Your task to perform on an android device: visit the assistant section in the google photos Image 0: 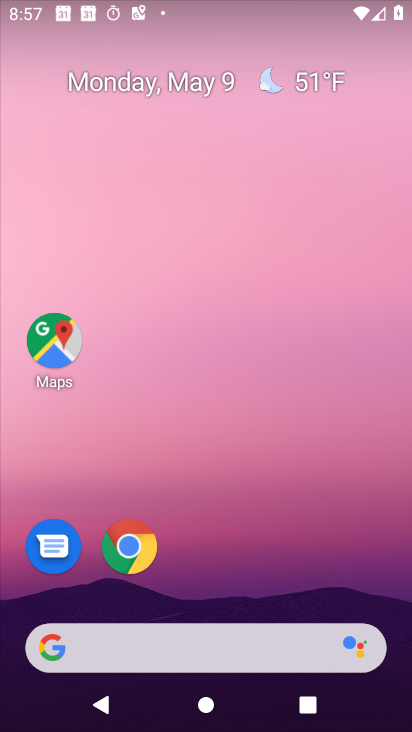
Step 0: drag from (262, 593) to (276, 77)
Your task to perform on an android device: visit the assistant section in the google photos Image 1: 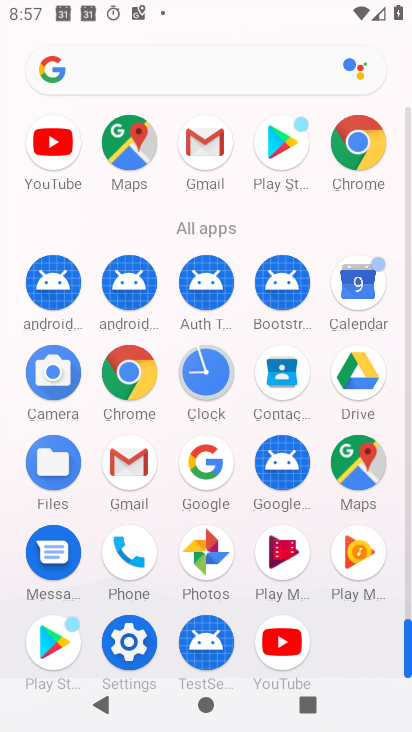
Step 1: click (211, 559)
Your task to perform on an android device: visit the assistant section in the google photos Image 2: 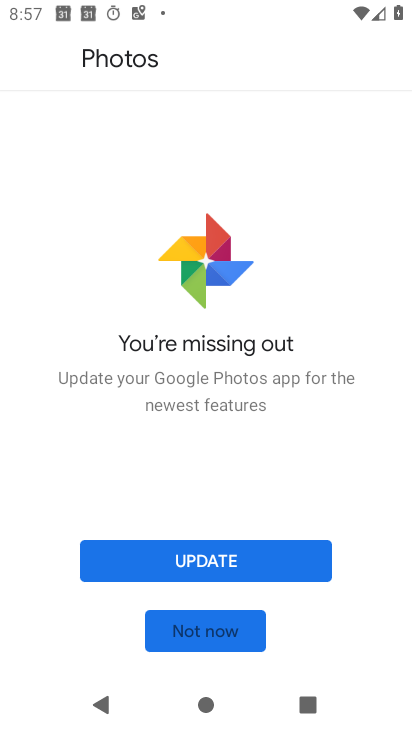
Step 2: click (284, 568)
Your task to perform on an android device: visit the assistant section in the google photos Image 3: 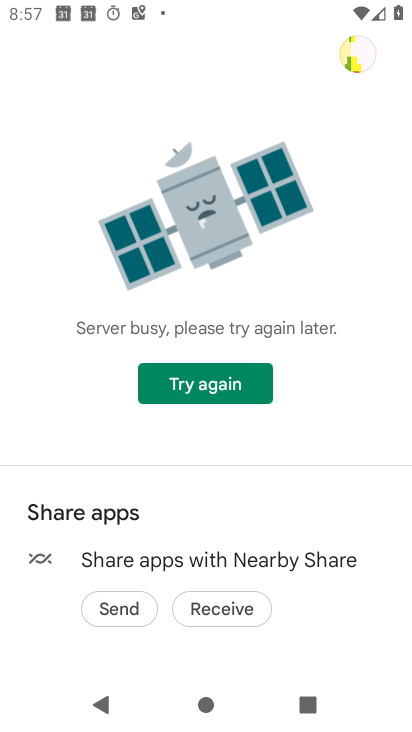
Step 3: press back button
Your task to perform on an android device: visit the assistant section in the google photos Image 4: 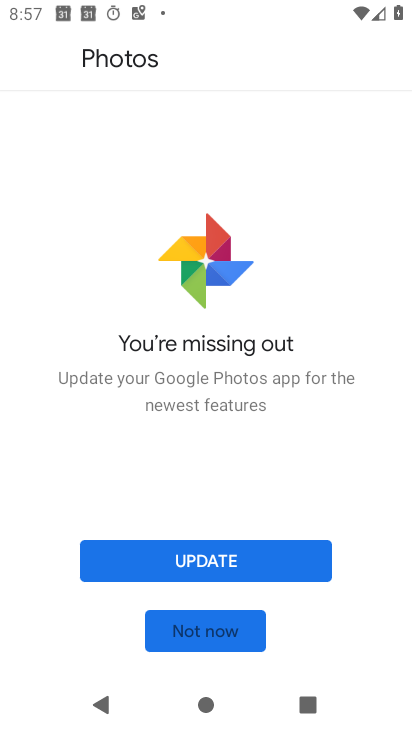
Step 4: click (218, 624)
Your task to perform on an android device: visit the assistant section in the google photos Image 5: 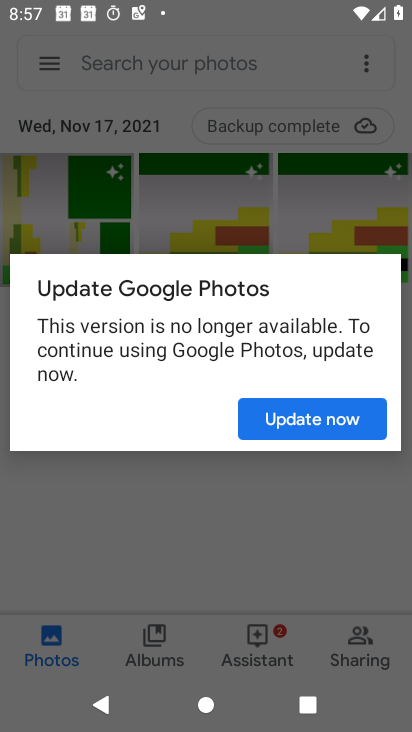
Step 5: click (286, 418)
Your task to perform on an android device: visit the assistant section in the google photos Image 6: 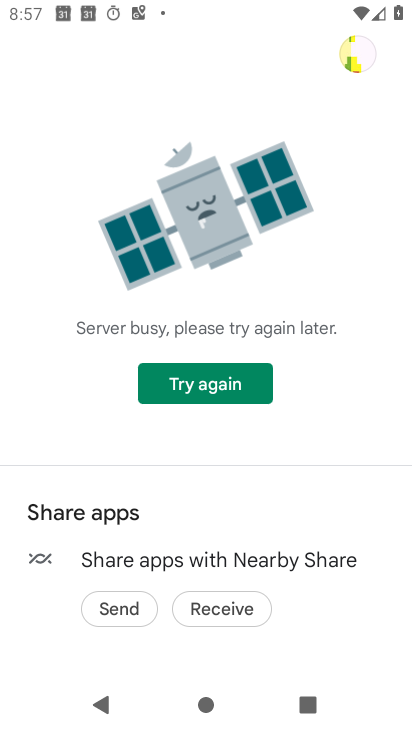
Step 6: press back button
Your task to perform on an android device: visit the assistant section in the google photos Image 7: 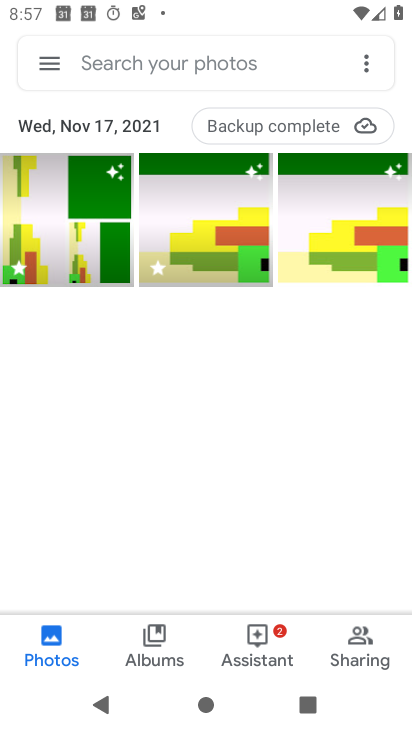
Step 7: click (270, 647)
Your task to perform on an android device: visit the assistant section in the google photos Image 8: 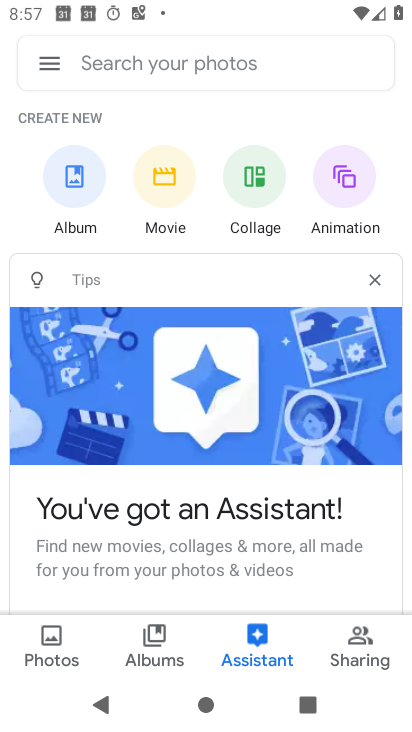
Step 8: task complete